Your task to perform on an android device: check storage Image 0: 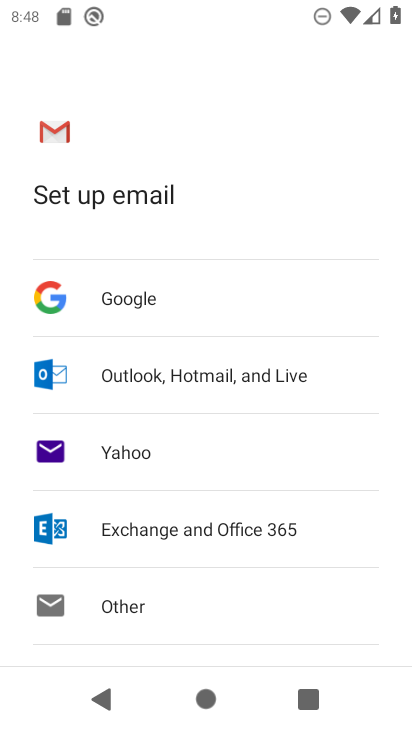
Step 0: press back button
Your task to perform on an android device: check storage Image 1: 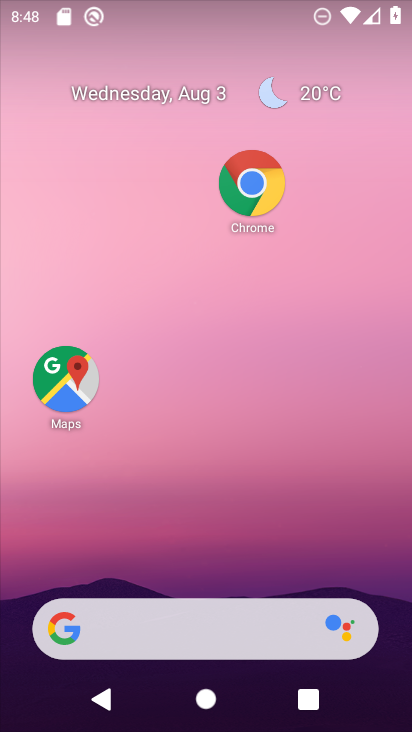
Step 1: drag from (186, 517) to (183, 79)
Your task to perform on an android device: check storage Image 2: 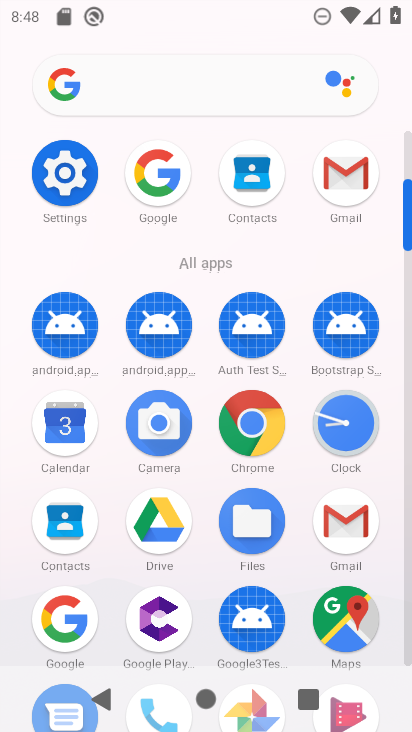
Step 2: click (66, 172)
Your task to perform on an android device: check storage Image 3: 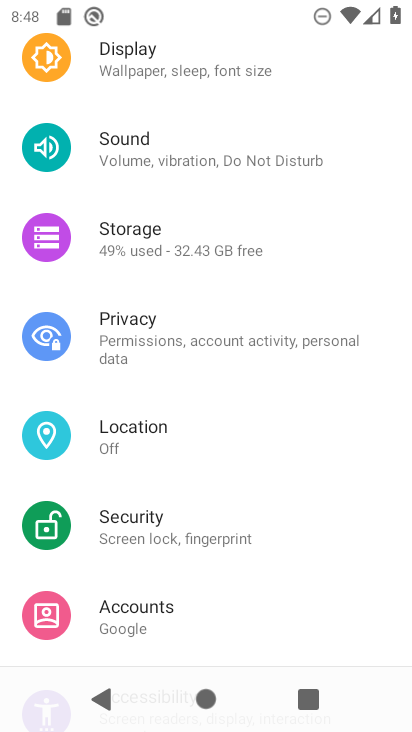
Step 3: click (164, 229)
Your task to perform on an android device: check storage Image 4: 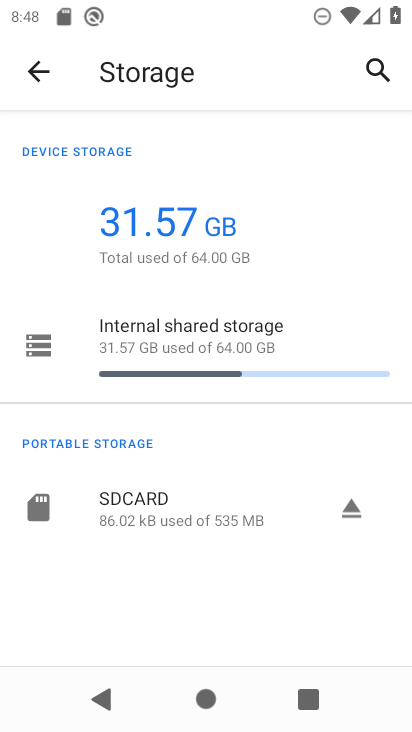
Step 4: task complete